Your task to perform on an android device: Search for "bose soundlink" on target, select the first entry, add it to the cart, then select checkout. Image 0: 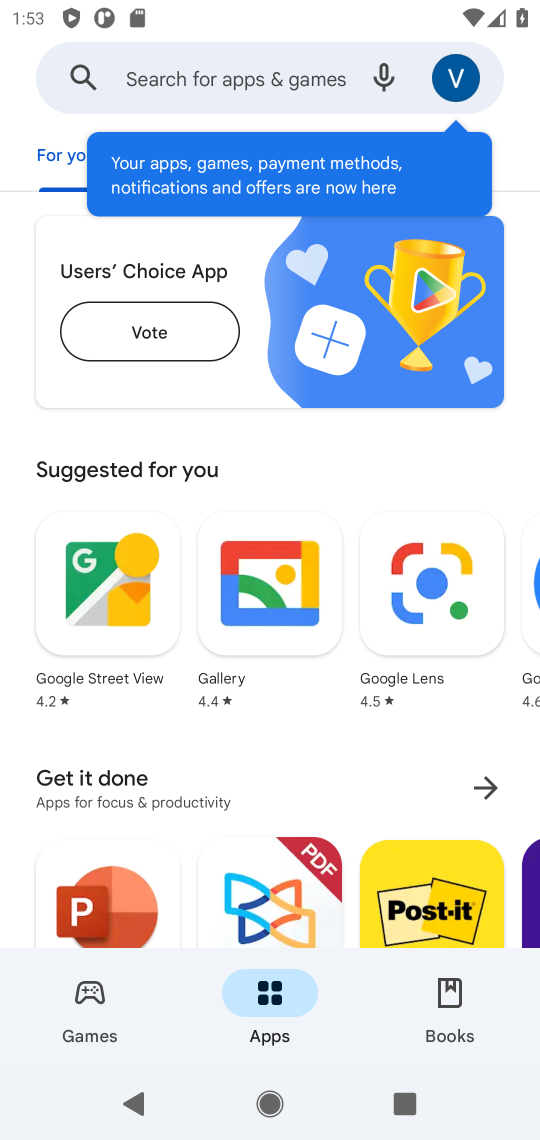
Step 0: press home button
Your task to perform on an android device: Search for "bose soundlink" on target, select the first entry, add it to the cart, then select checkout. Image 1: 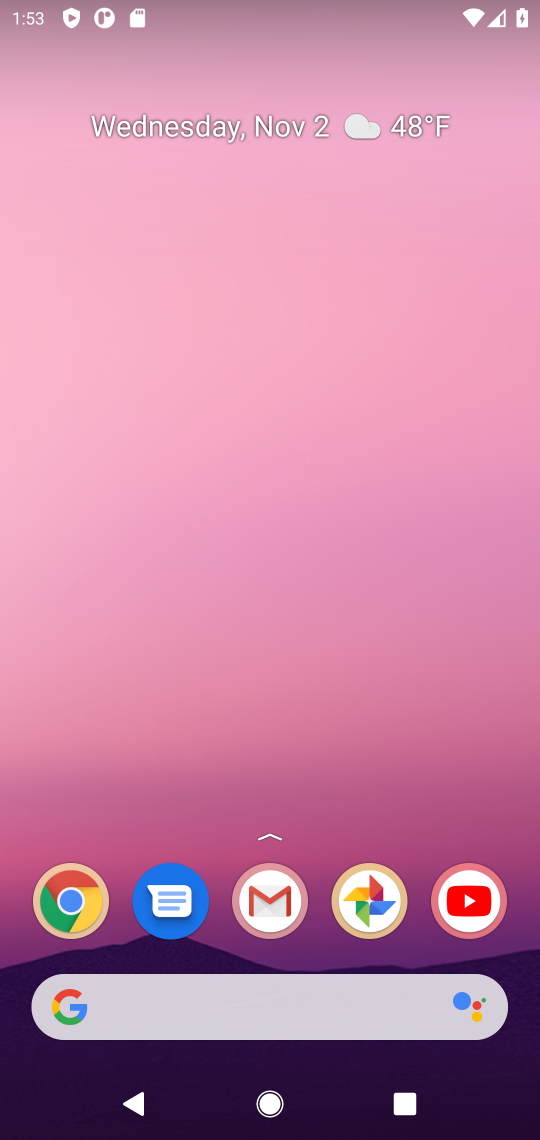
Step 1: drag from (206, 966) to (458, 67)
Your task to perform on an android device: Search for "bose soundlink" on target, select the first entry, add it to the cart, then select checkout. Image 2: 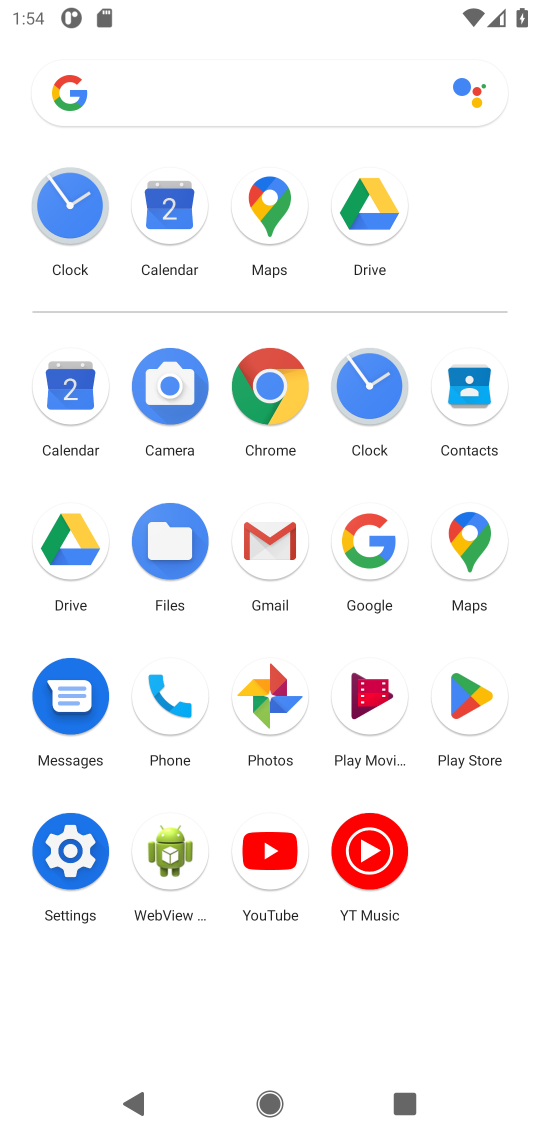
Step 2: click (273, 373)
Your task to perform on an android device: Search for "bose soundlink" on target, select the first entry, add it to the cart, then select checkout. Image 3: 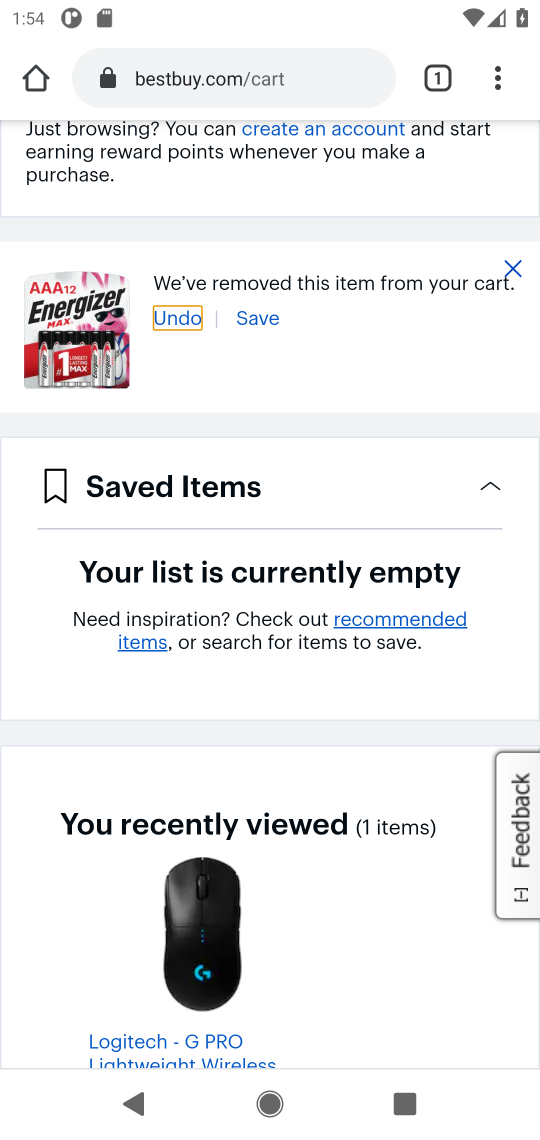
Step 3: click (351, 76)
Your task to perform on an android device: Search for "bose soundlink" on target, select the first entry, add it to the cart, then select checkout. Image 4: 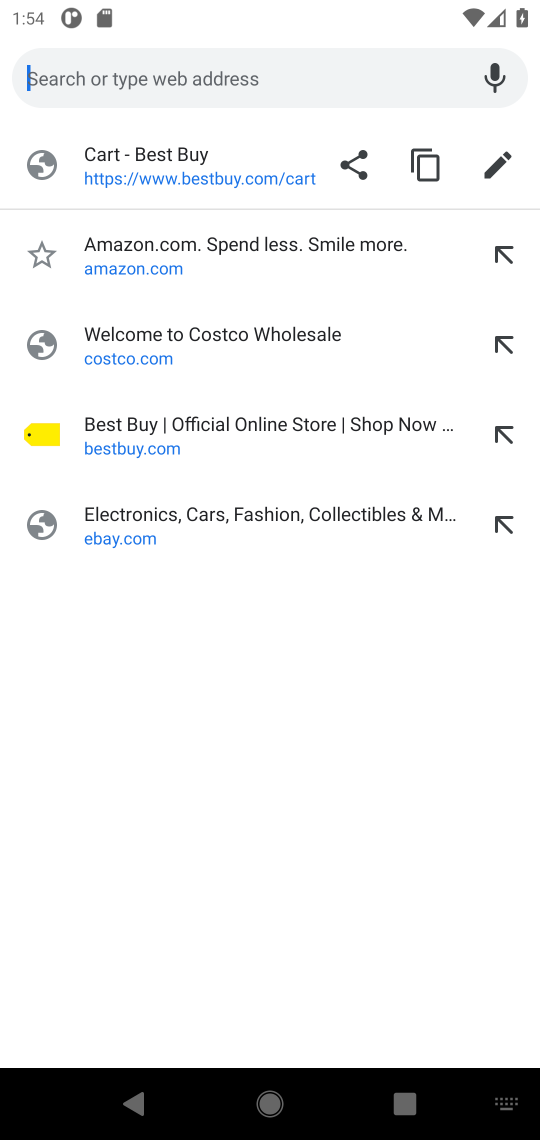
Step 4: type "target.com"
Your task to perform on an android device: Search for "bose soundlink" on target, select the first entry, add it to the cart, then select checkout. Image 5: 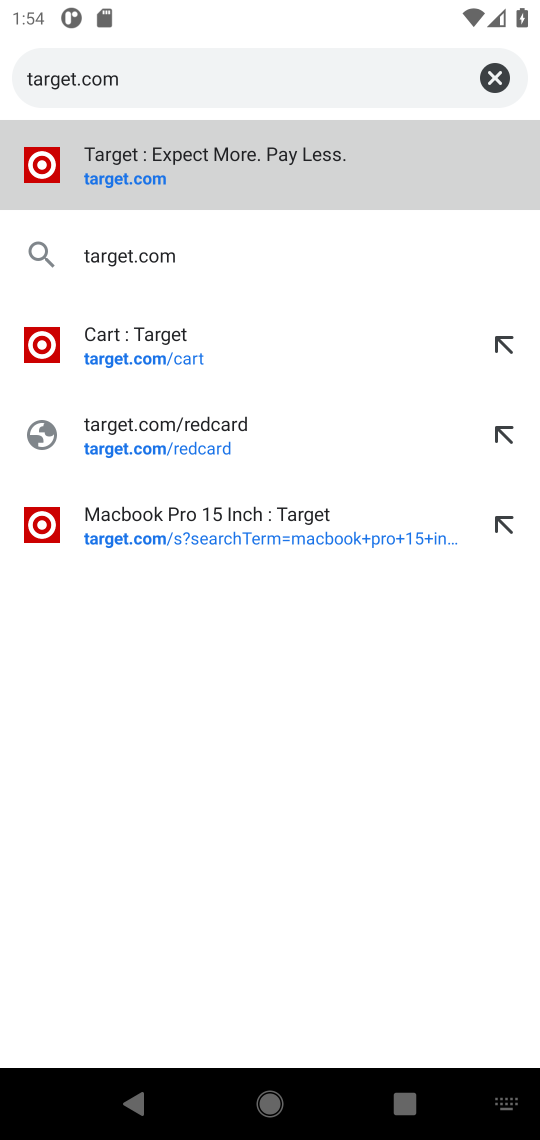
Step 5: press enter
Your task to perform on an android device: Search for "bose soundlink" on target, select the first entry, add it to the cart, then select checkout. Image 6: 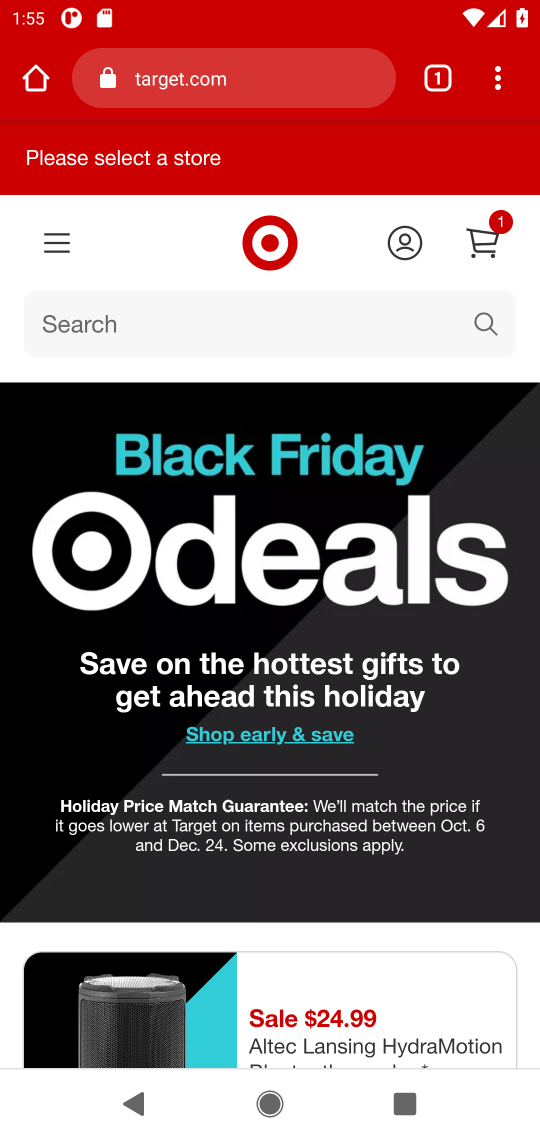
Step 6: click (329, 325)
Your task to perform on an android device: Search for "bose soundlink" on target, select the first entry, add it to the cart, then select checkout. Image 7: 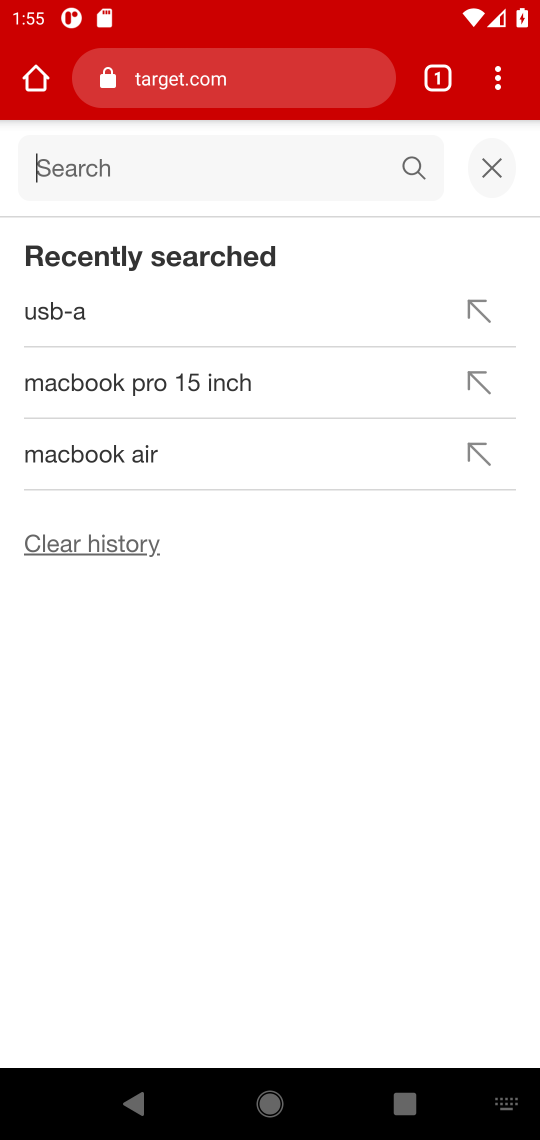
Step 7: type "bose soundlink"
Your task to perform on an android device: Search for "bose soundlink" on target, select the first entry, add it to the cart, then select checkout. Image 8: 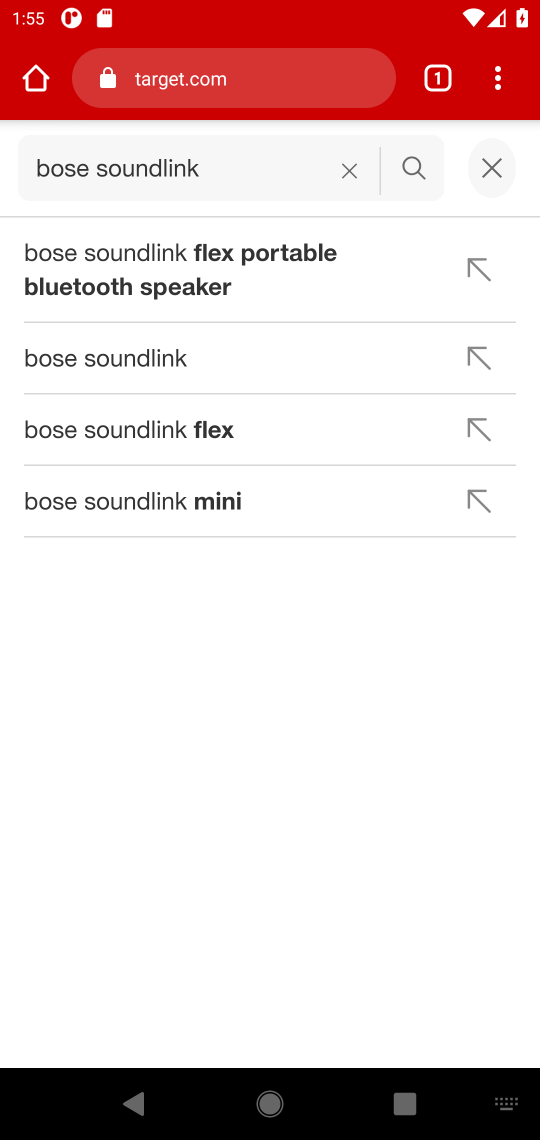
Step 8: press enter
Your task to perform on an android device: Search for "bose soundlink" on target, select the first entry, add it to the cart, then select checkout. Image 9: 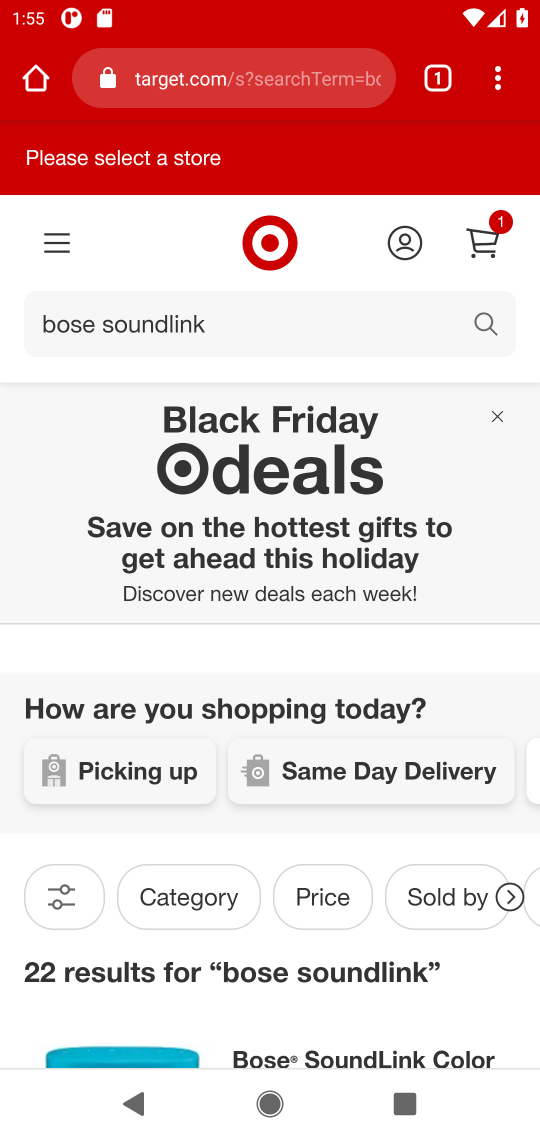
Step 9: drag from (332, 861) to (343, 127)
Your task to perform on an android device: Search for "bose soundlink" on target, select the first entry, add it to the cart, then select checkout. Image 10: 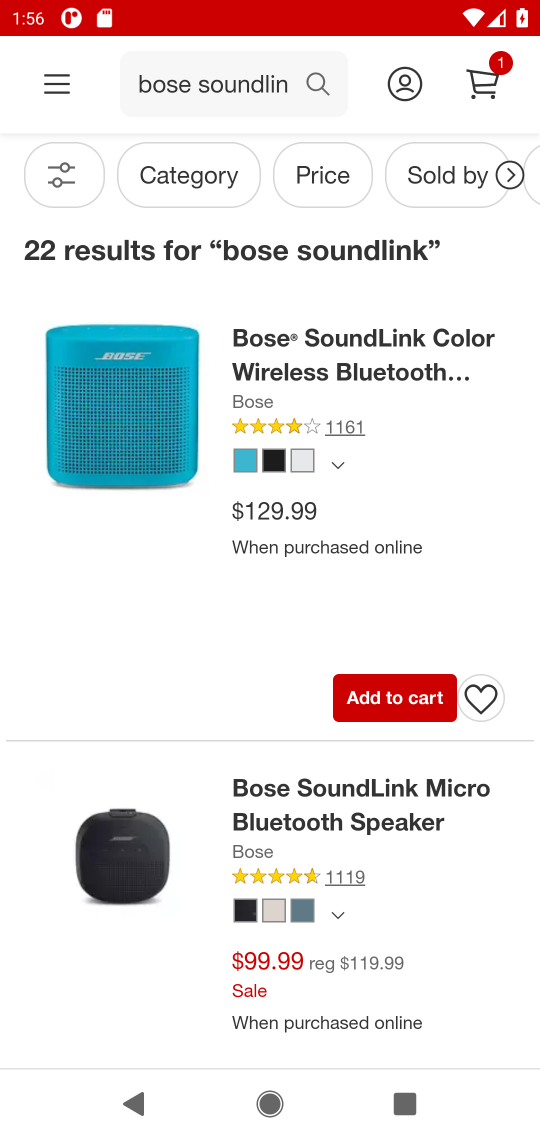
Step 10: click (364, 706)
Your task to perform on an android device: Search for "bose soundlink" on target, select the first entry, add it to the cart, then select checkout. Image 11: 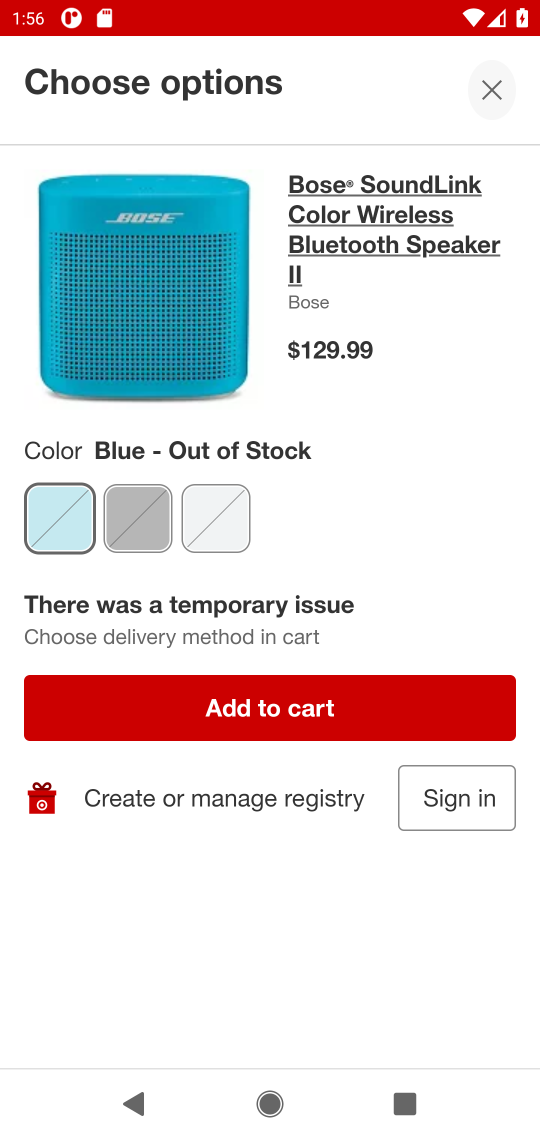
Step 11: click (335, 711)
Your task to perform on an android device: Search for "bose soundlink" on target, select the first entry, add it to the cart, then select checkout. Image 12: 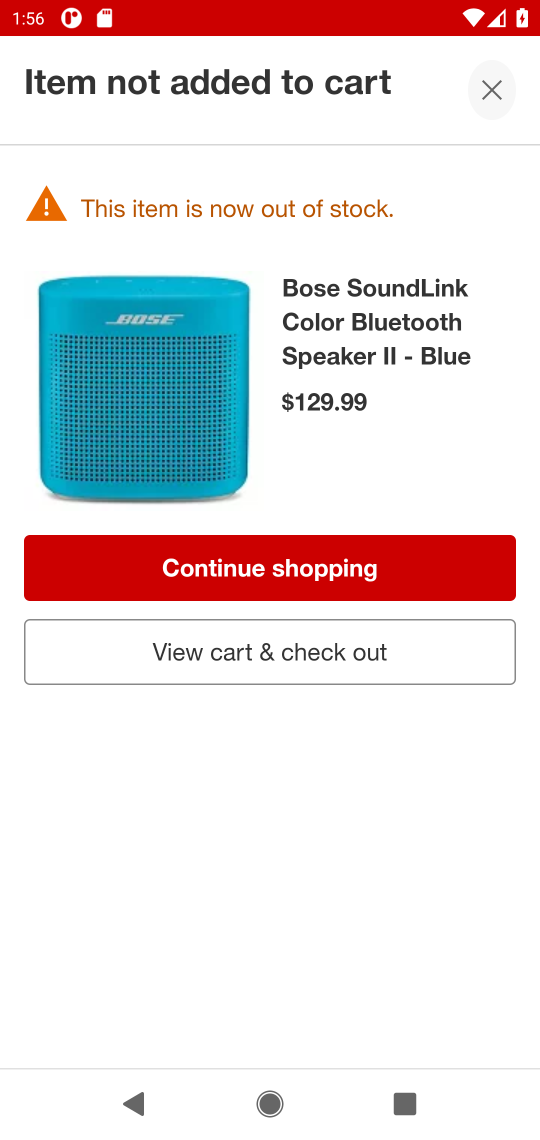
Step 12: click (259, 647)
Your task to perform on an android device: Search for "bose soundlink" on target, select the first entry, add it to the cart, then select checkout. Image 13: 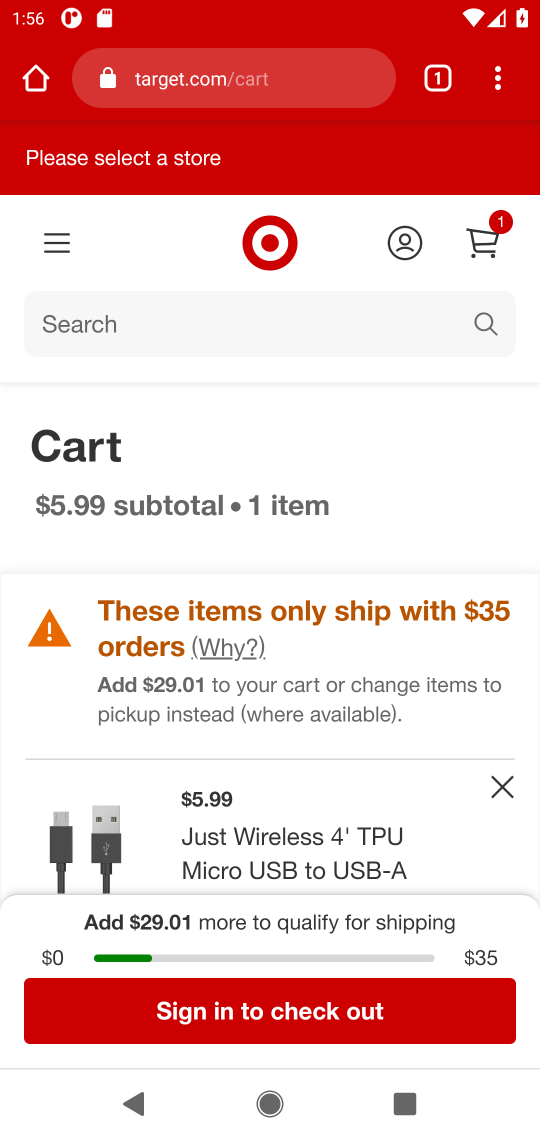
Step 13: task complete